Your task to perform on an android device: Search for pizza restaurants on Maps Image 0: 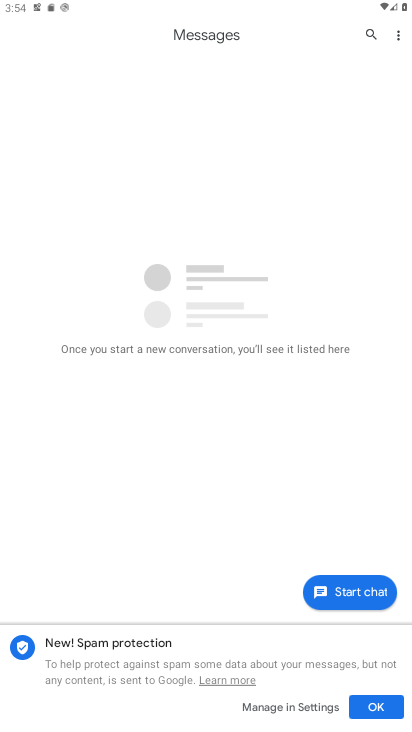
Step 0: press home button
Your task to perform on an android device: Search for pizza restaurants on Maps Image 1: 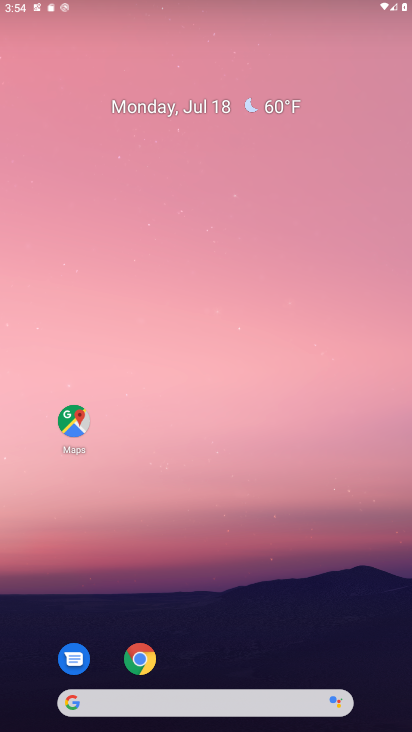
Step 1: drag from (236, 712) to (246, 2)
Your task to perform on an android device: Search for pizza restaurants on Maps Image 2: 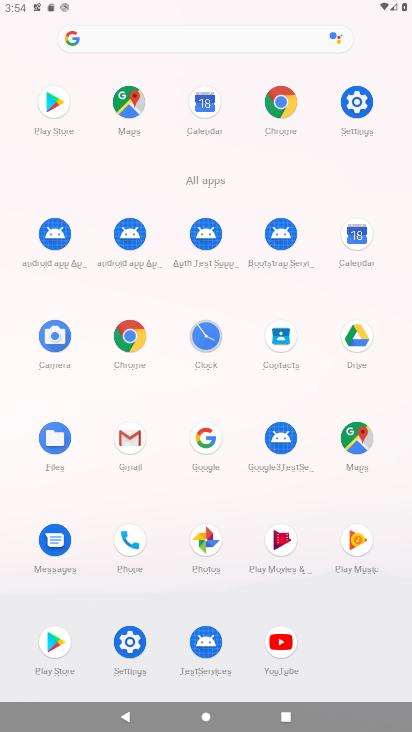
Step 2: click (359, 444)
Your task to perform on an android device: Search for pizza restaurants on Maps Image 3: 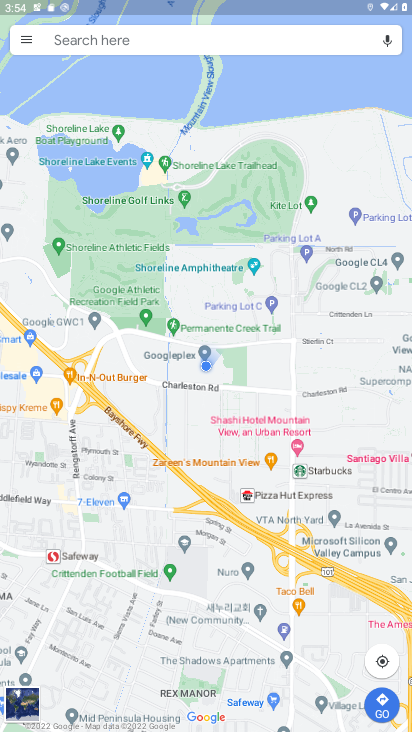
Step 3: click (209, 47)
Your task to perform on an android device: Search for pizza restaurants on Maps Image 4: 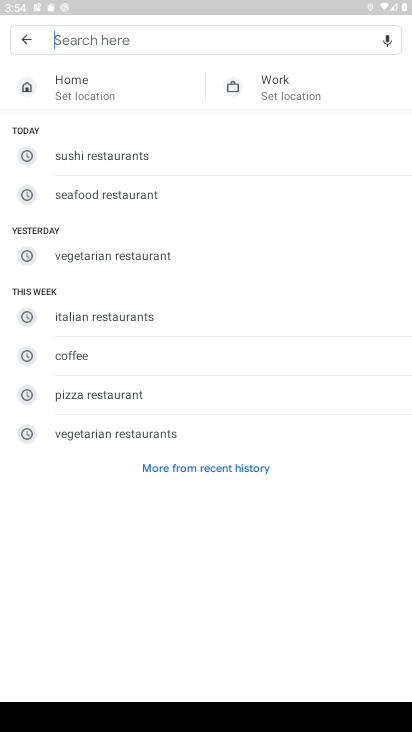
Step 4: click (110, 399)
Your task to perform on an android device: Search for pizza restaurants on Maps Image 5: 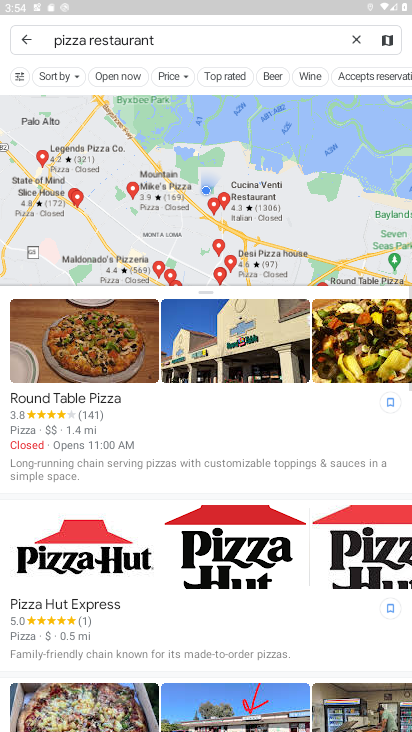
Step 5: task complete